Your task to perform on an android device: Open Chrome and go to the settings page Image 0: 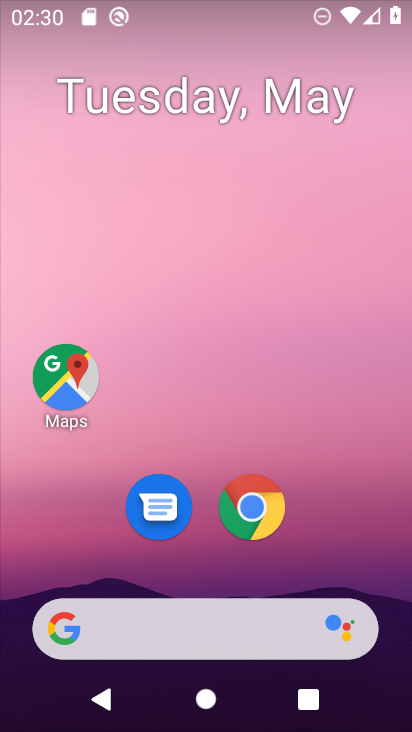
Step 0: click (277, 501)
Your task to perform on an android device: Open Chrome and go to the settings page Image 1: 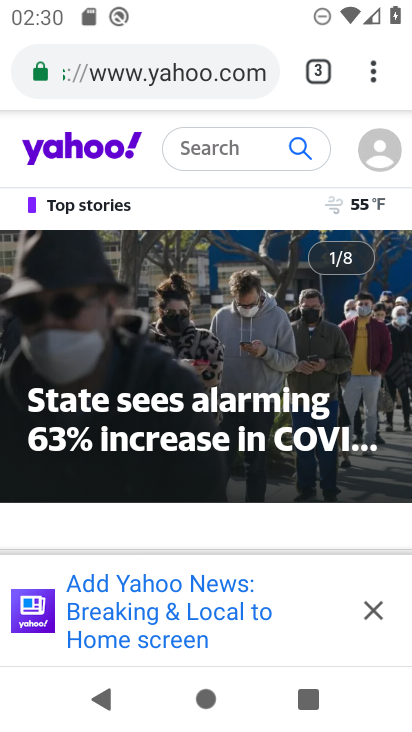
Step 1: task complete